Your task to perform on an android device: stop showing notifications on the lock screen Image 0: 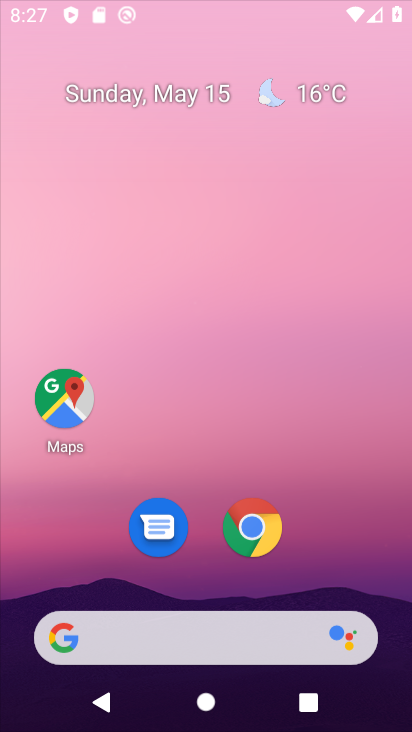
Step 0: drag from (377, 433) to (412, 12)
Your task to perform on an android device: stop showing notifications on the lock screen Image 1: 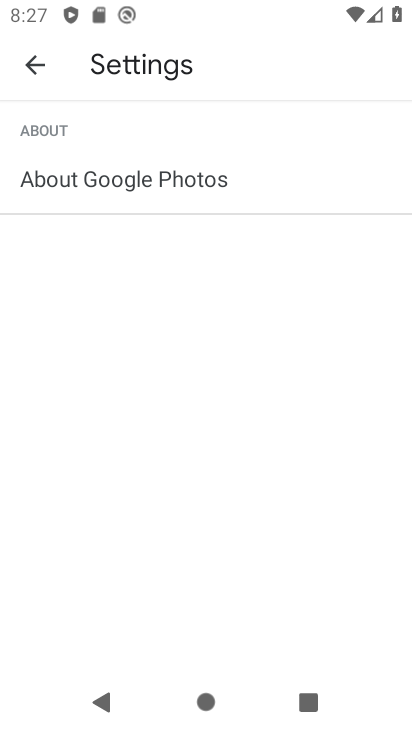
Step 1: press home button
Your task to perform on an android device: stop showing notifications on the lock screen Image 2: 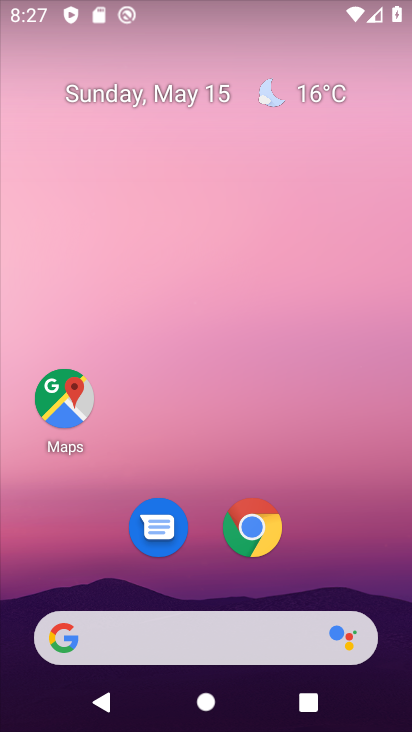
Step 2: drag from (379, 581) to (316, 15)
Your task to perform on an android device: stop showing notifications on the lock screen Image 3: 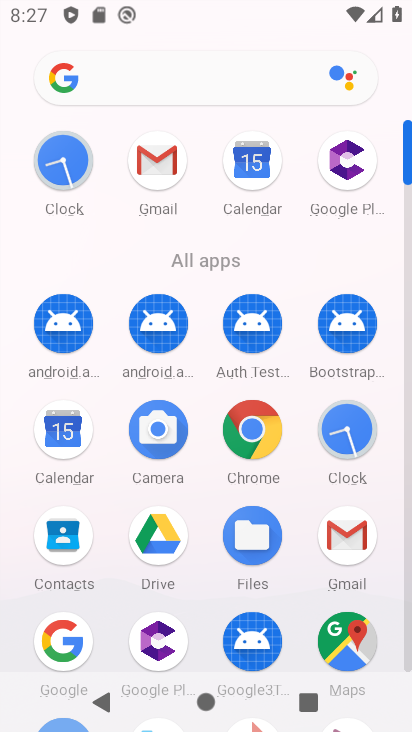
Step 3: click (407, 467)
Your task to perform on an android device: stop showing notifications on the lock screen Image 4: 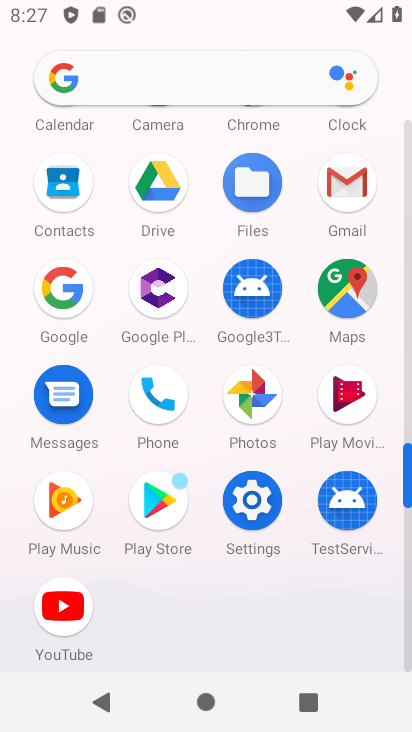
Step 4: click (254, 512)
Your task to perform on an android device: stop showing notifications on the lock screen Image 5: 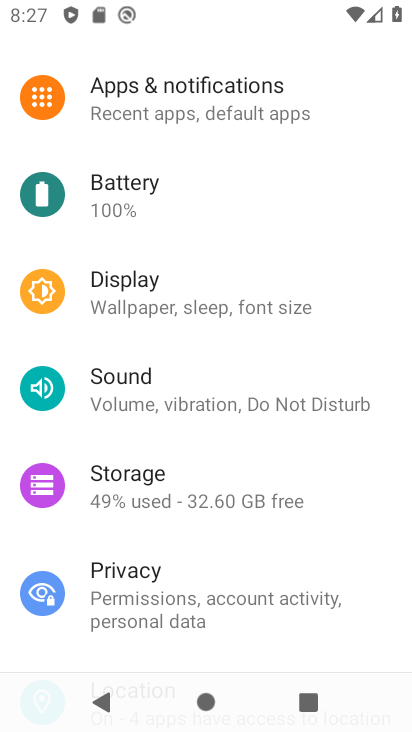
Step 5: click (198, 108)
Your task to perform on an android device: stop showing notifications on the lock screen Image 6: 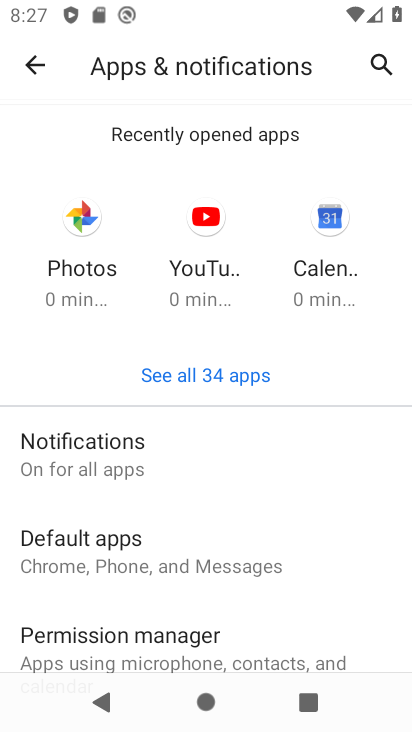
Step 6: click (126, 463)
Your task to perform on an android device: stop showing notifications on the lock screen Image 7: 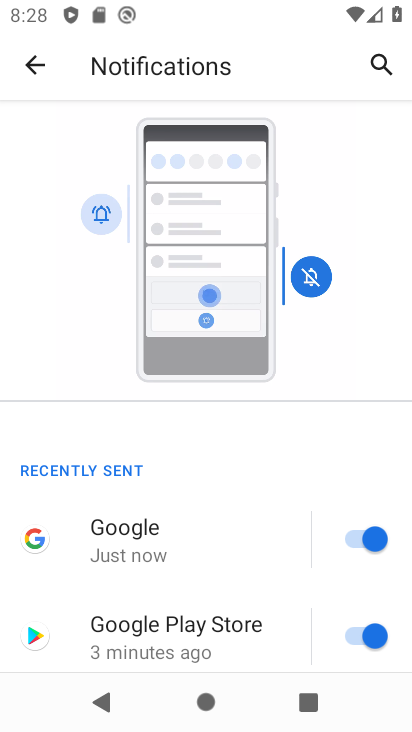
Step 7: drag from (236, 550) to (190, 104)
Your task to perform on an android device: stop showing notifications on the lock screen Image 8: 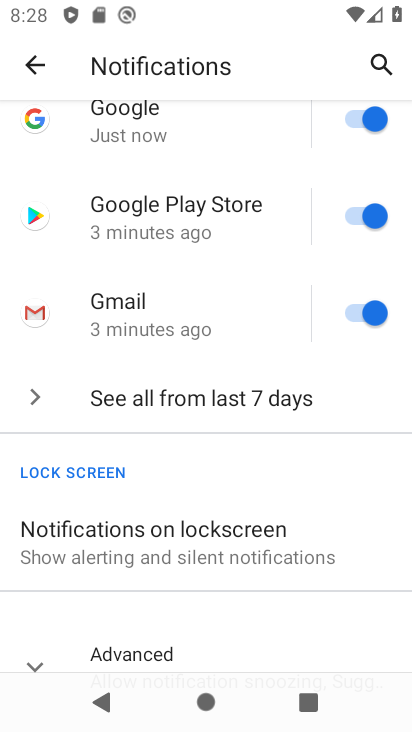
Step 8: drag from (226, 444) to (213, 178)
Your task to perform on an android device: stop showing notifications on the lock screen Image 9: 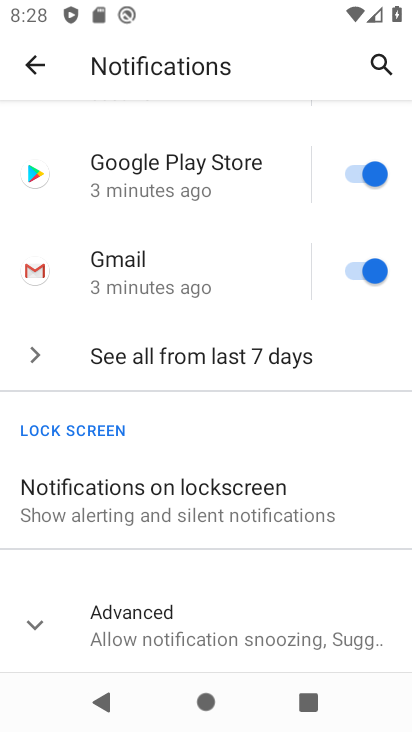
Step 9: click (163, 507)
Your task to perform on an android device: stop showing notifications on the lock screen Image 10: 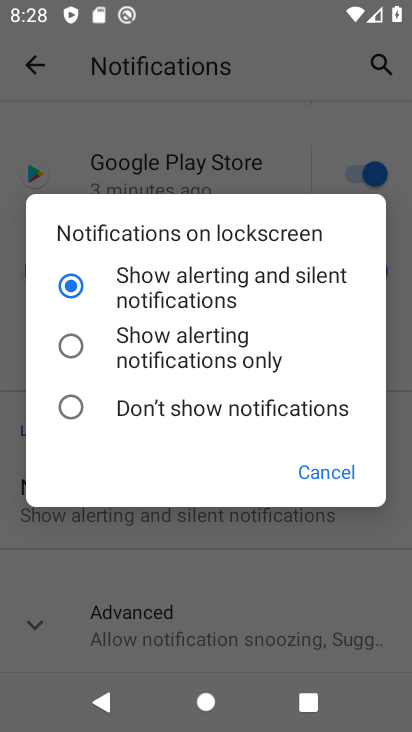
Step 10: click (69, 405)
Your task to perform on an android device: stop showing notifications on the lock screen Image 11: 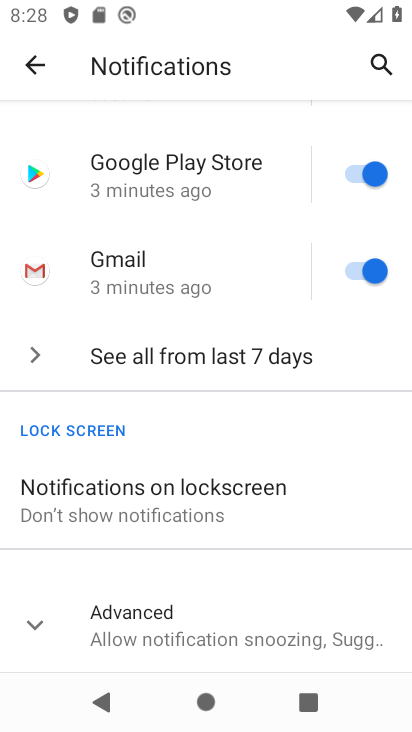
Step 11: task complete